Your task to perform on an android device: turn off smart reply in the gmail app Image 0: 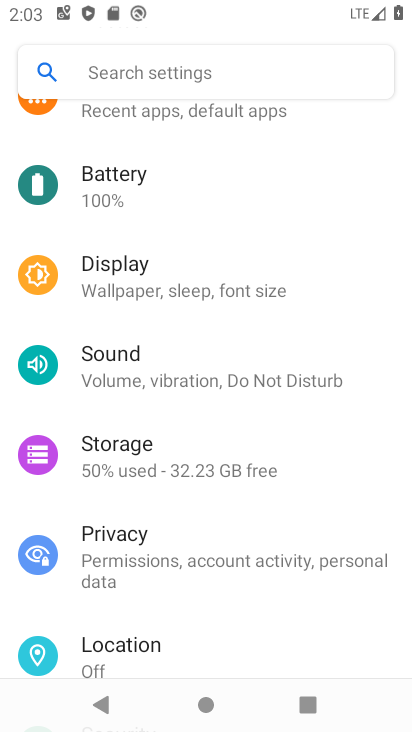
Step 0: press home button
Your task to perform on an android device: turn off smart reply in the gmail app Image 1: 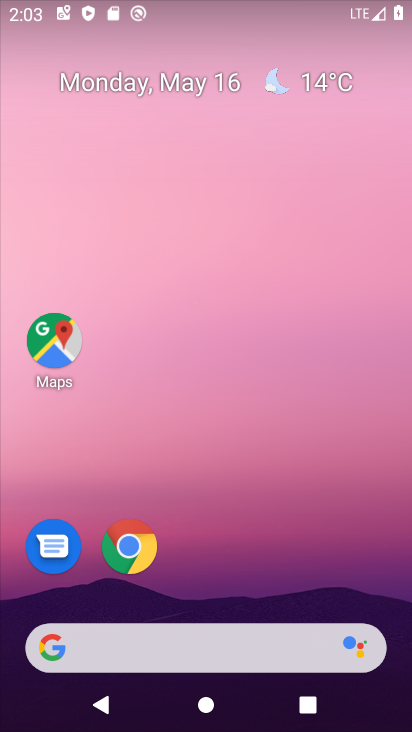
Step 1: drag from (265, 680) to (379, 178)
Your task to perform on an android device: turn off smart reply in the gmail app Image 2: 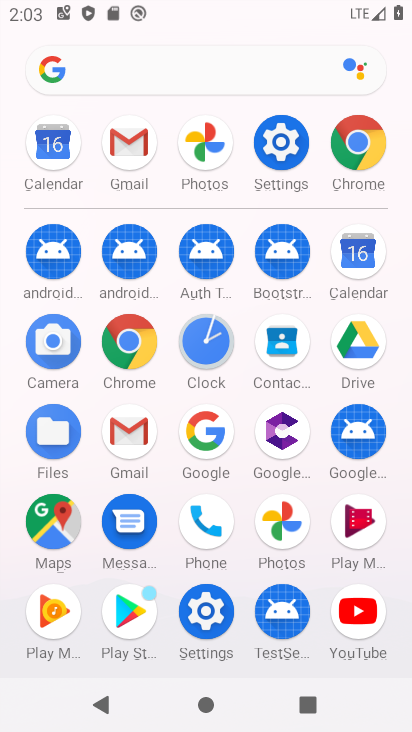
Step 2: click (127, 431)
Your task to perform on an android device: turn off smart reply in the gmail app Image 3: 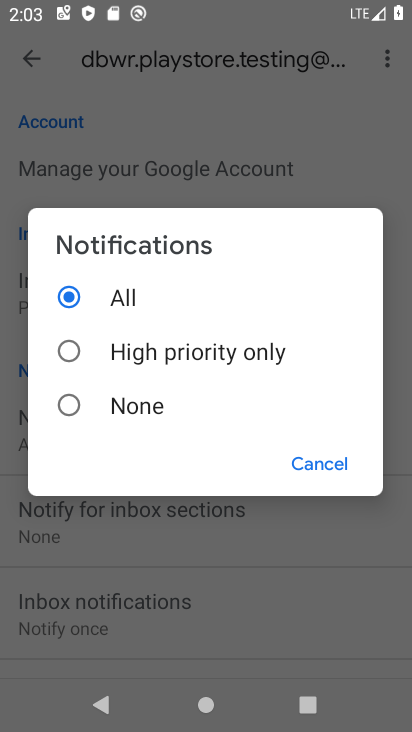
Step 3: click (318, 466)
Your task to perform on an android device: turn off smart reply in the gmail app Image 4: 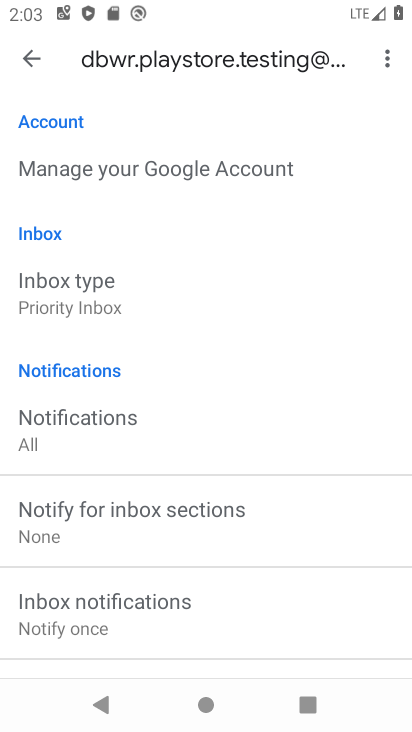
Step 4: drag from (207, 536) to (258, 357)
Your task to perform on an android device: turn off smart reply in the gmail app Image 5: 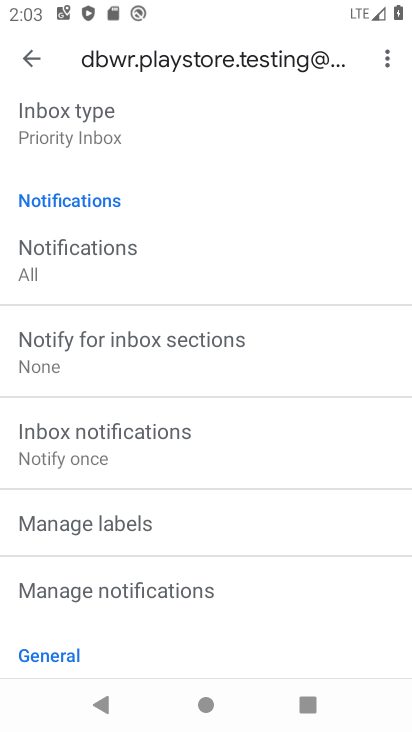
Step 5: drag from (135, 577) to (183, 394)
Your task to perform on an android device: turn off smart reply in the gmail app Image 6: 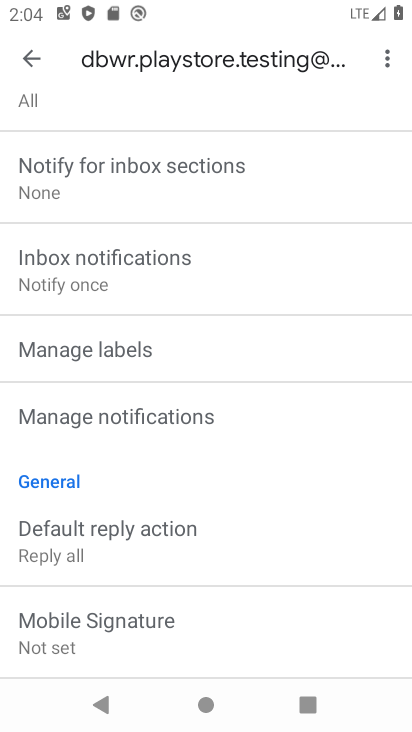
Step 6: drag from (110, 591) to (204, 259)
Your task to perform on an android device: turn off smart reply in the gmail app Image 7: 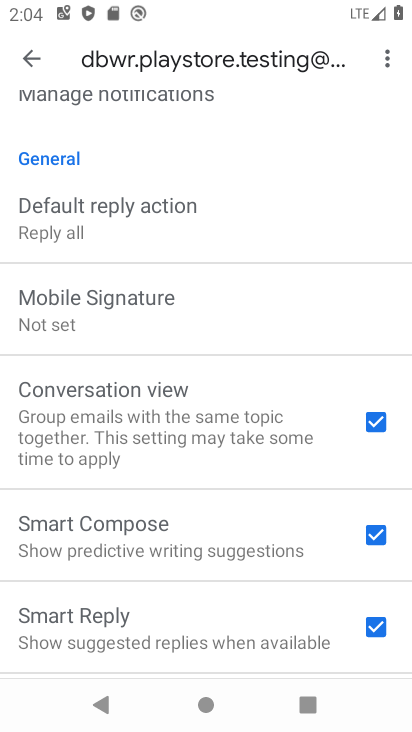
Step 7: click (198, 591)
Your task to perform on an android device: turn off smart reply in the gmail app Image 8: 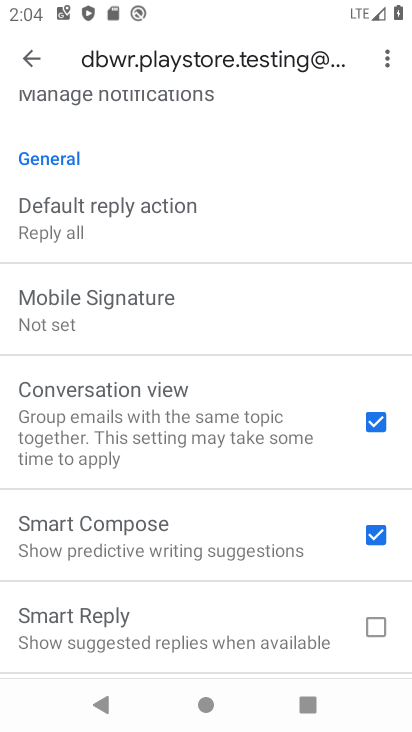
Step 8: task complete